Your task to perform on an android device: When is my next meeting? Image 0: 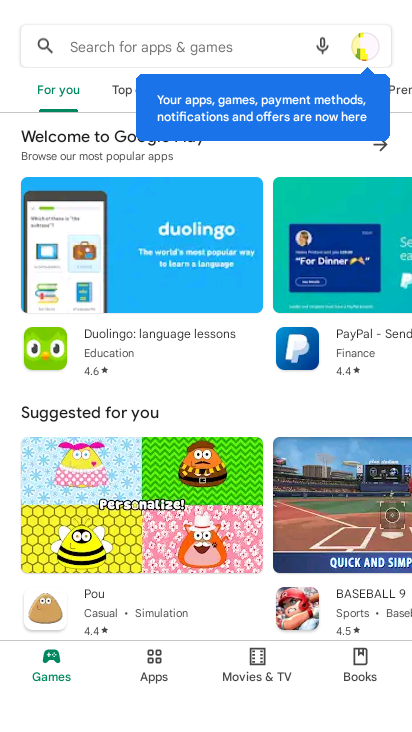
Step 0: press home button
Your task to perform on an android device: When is my next meeting? Image 1: 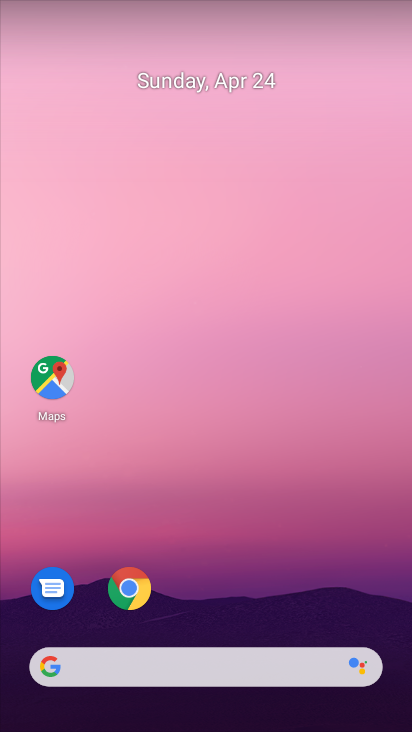
Step 1: drag from (247, 606) to (230, 37)
Your task to perform on an android device: When is my next meeting? Image 2: 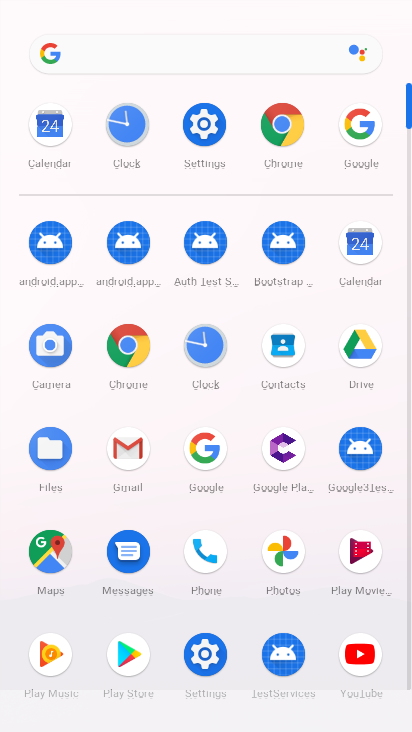
Step 2: click (51, 137)
Your task to perform on an android device: When is my next meeting? Image 3: 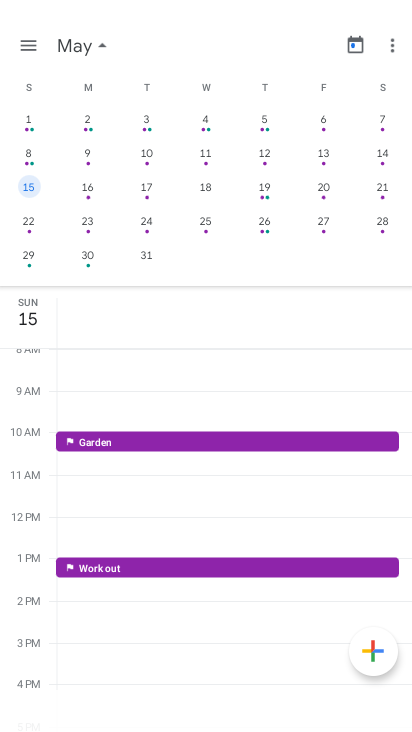
Step 3: drag from (340, 101) to (410, 90)
Your task to perform on an android device: When is my next meeting? Image 4: 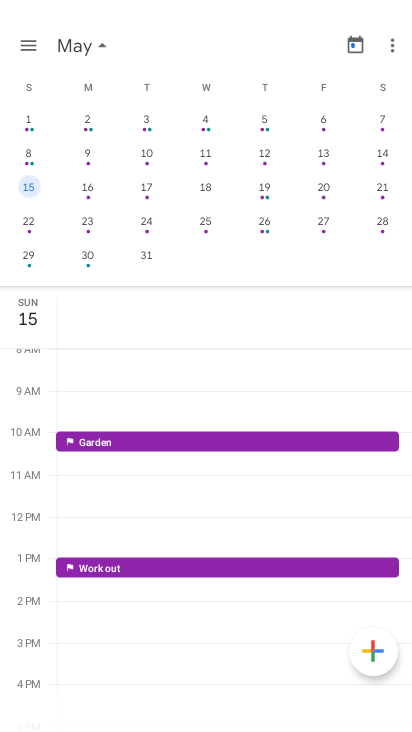
Step 4: drag from (77, 171) to (389, 146)
Your task to perform on an android device: When is my next meeting? Image 5: 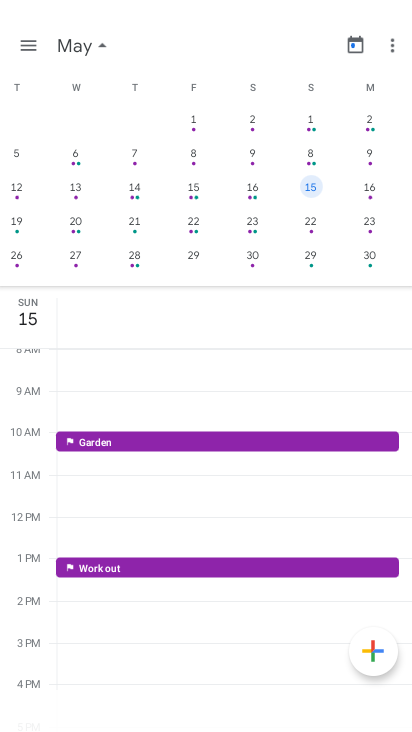
Step 5: drag from (244, 180) to (405, 154)
Your task to perform on an android device: When is my next meeting? Image 6: 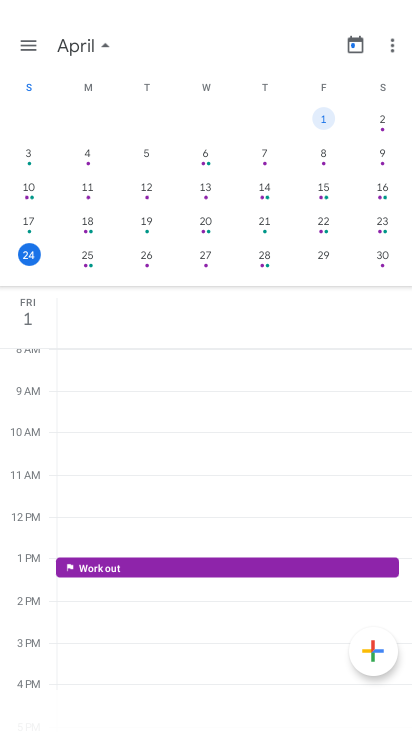
Step 6: click (94, 255)
Your task to perform on an android device: When is my next meeting? Image 7: 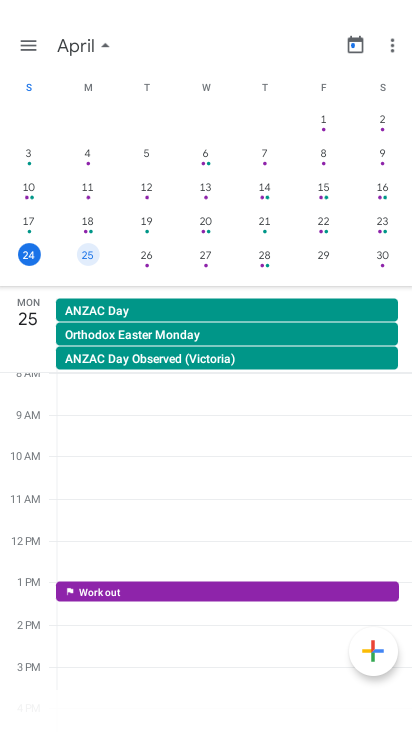
Step 7: click (85, 252)
Your task to perform on an android device: When is my next meeting? Image 8: 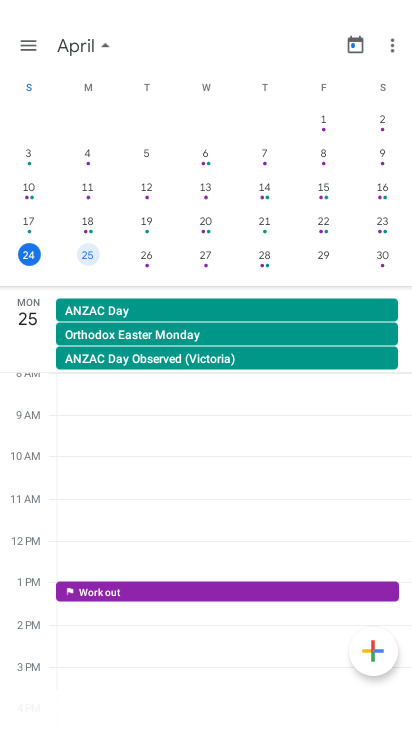
Step 8: click (29, 45)
Your task to perform on an android device: When is my next meeting? Image 9: 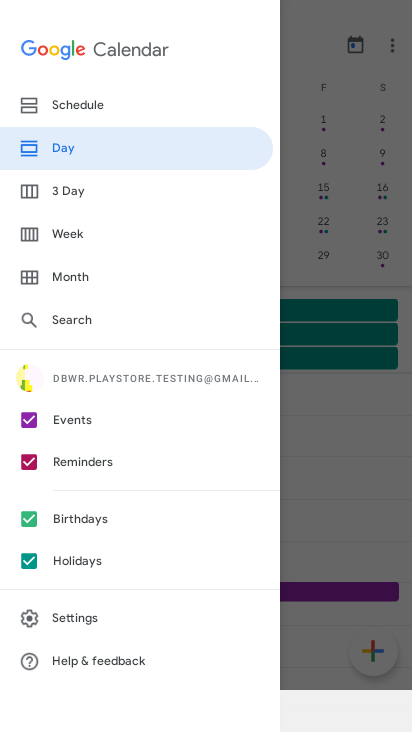
Step 9: click (95, 102)
Your task to perform on an android device: When is my next meeting? Image 10: 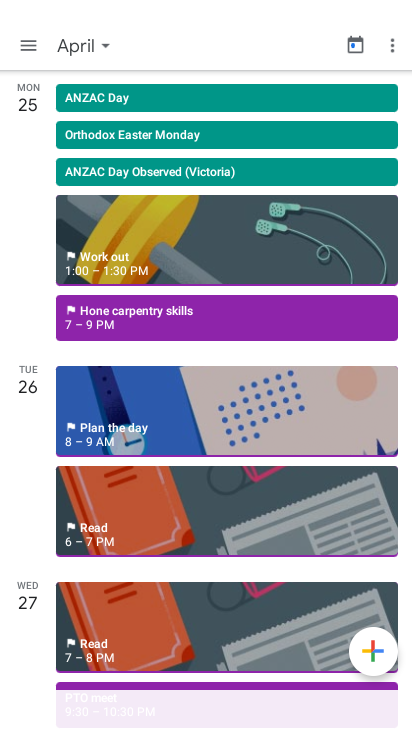
Step 10: task complete